Your task to perform on an android device: Toggle the flashlight Image 0: 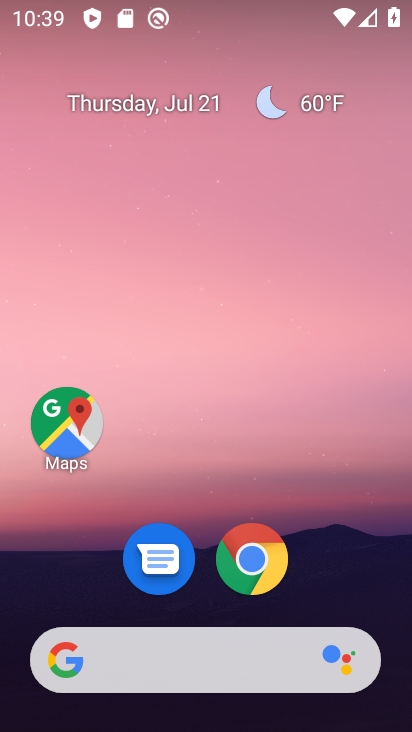
Step 0: drag from (182, 602) to (237, 56)
Your task to perform on an android device: Toggle the flashlight Image 1: 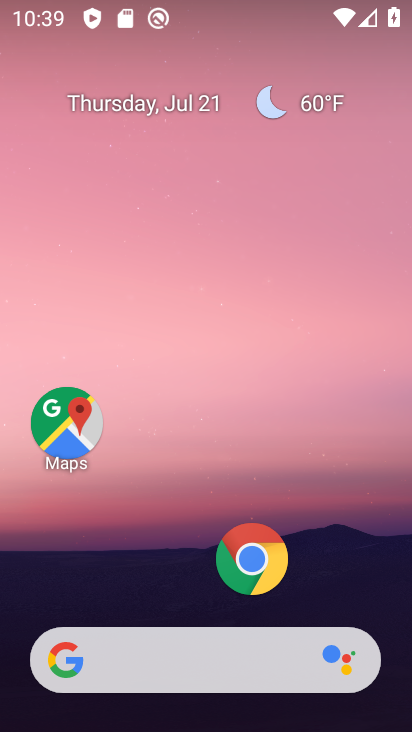
Step 1: drag from (162, 600) to (149, 19)
Your task to perform on an android device: Toggle the flashlight Image 2: 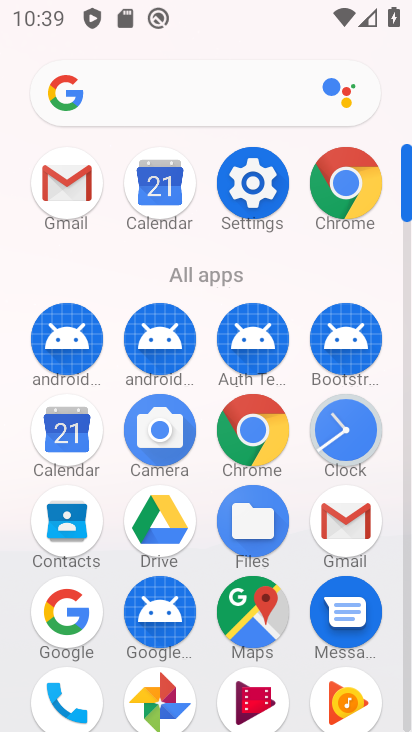
Step 2: click (244, 184)
Your task to perform on an android device: Toggle the flashlight Image 3: 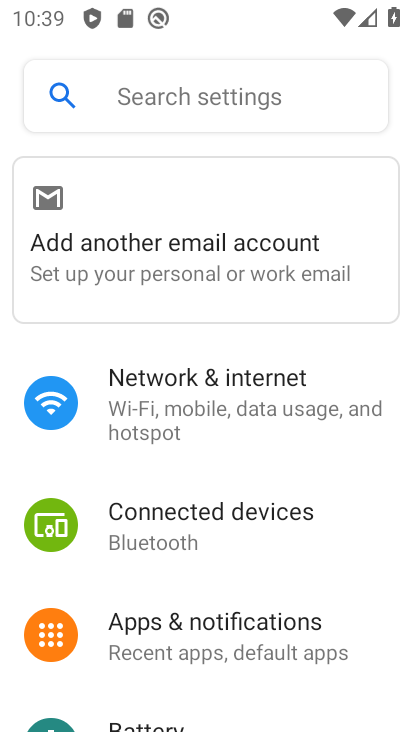
Step 3: click (179, 85)
Your task to perform on an android device: Toggle the flashlight Image 4: 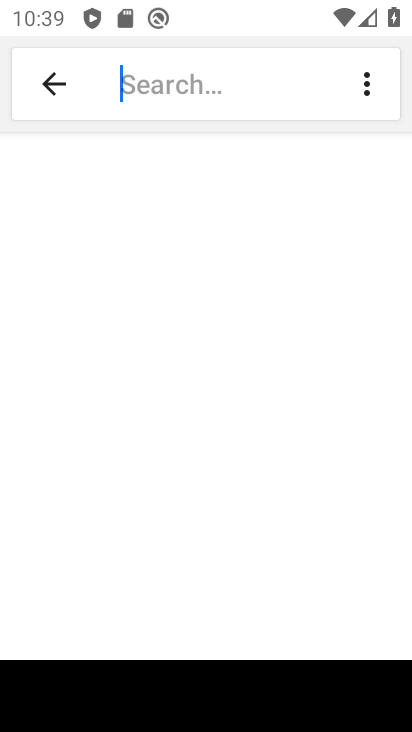
Step 4: type "flashlight"
Your task to perform on an android device: Toggle the flashlight Image 5: 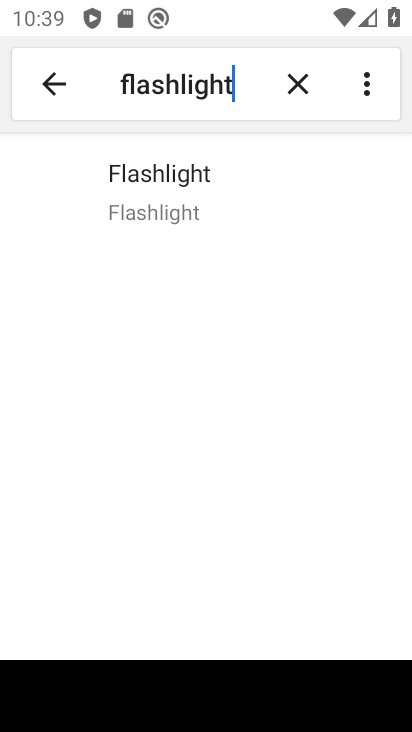
Step 5: click (183, 189)
Your task to perform on an android device: Toggle the flashlight Image 6: 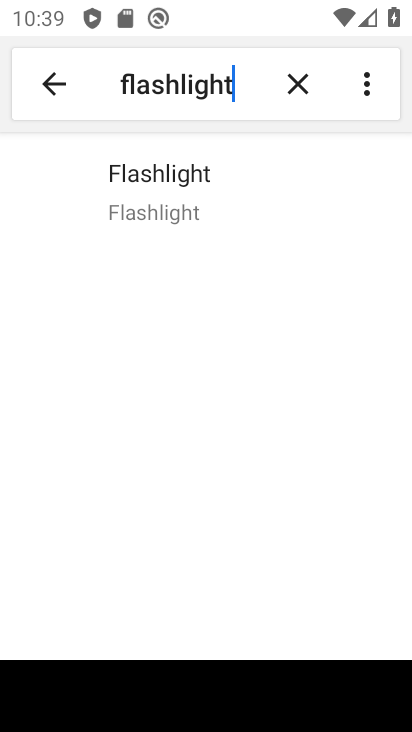
Step 6: task complete